Your task to perform on an android device: turn off picture-in-picture Image 0: 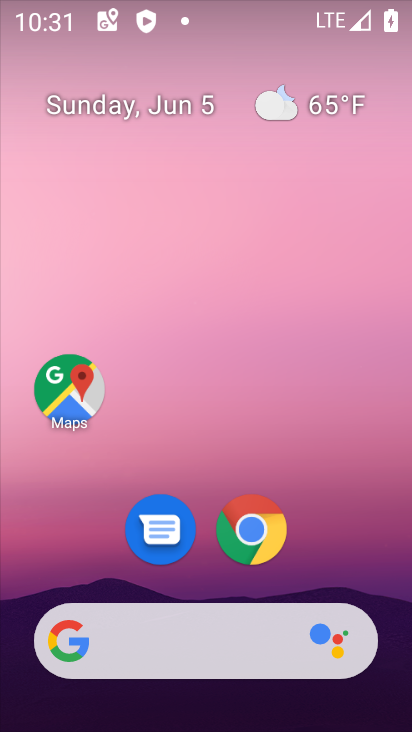
Step 0: click (256, 534)
Your task to perform on an android device: turn off picture-in-picture Image 1: 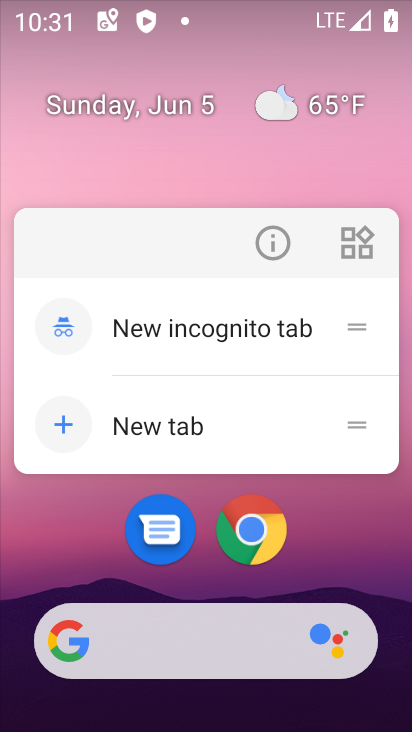
Step 1: click (276, 251)
Your task to perform on an android device: turn off picture-in-picture Image 2: 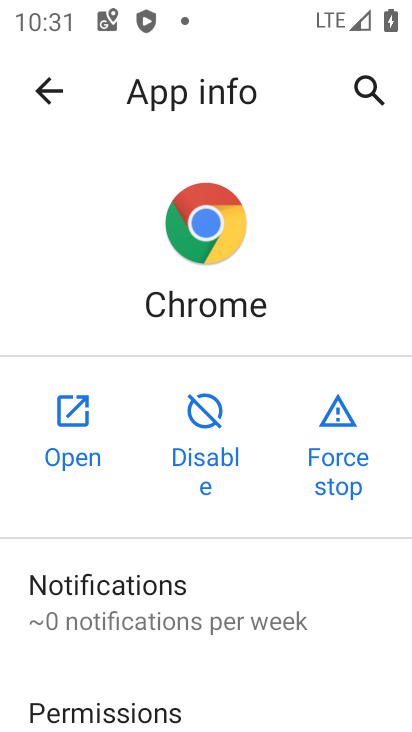
Step 2: drag from (235, 660) to (375, 44)
Your task to perform on an android device: turn off picture-in-picture Image 3: 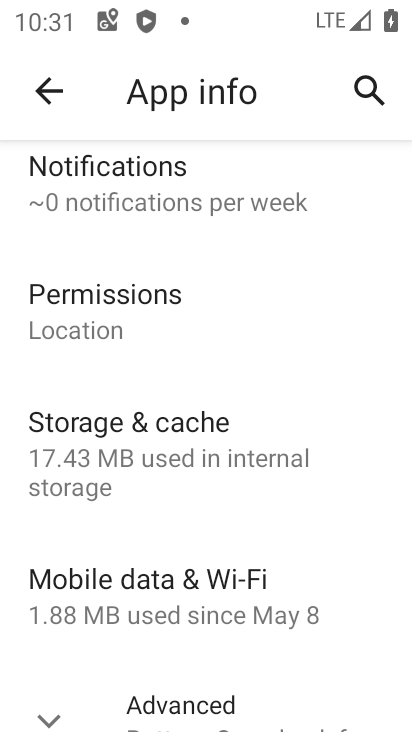
Step 3: drag from (296, 690) to (363, 24)
Your task to perform on an android device: turn off picture-in-picture Image 4: 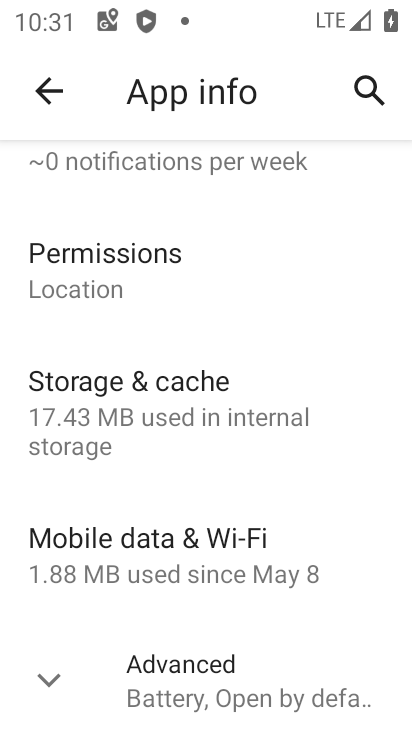
Step 4: click (251, 700)
Your task to perform on an android device: turn off picture-in-picture Image 5: 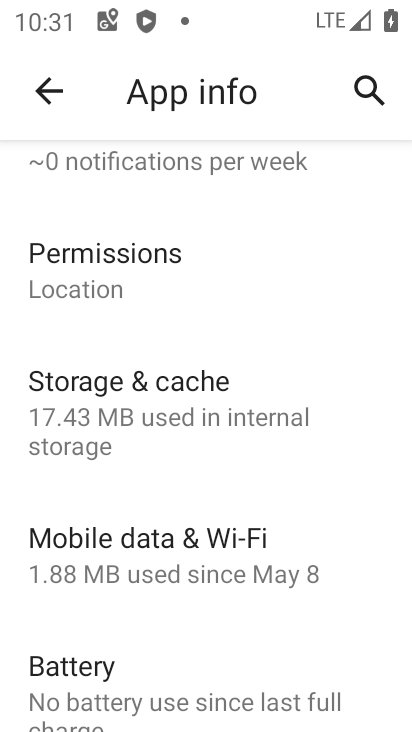
Step 5: drag from (106, 405) to (259, 7)
Your task to perform on an android device: turn off picture-in-picture Image 6: 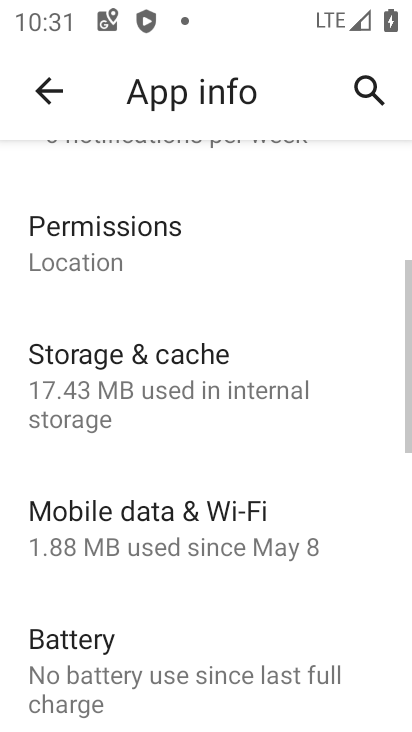
Step 6: drag from (286, 598) to (396, 236)
Your task to perform on an android device: turn off picture-in-picture Image 7: 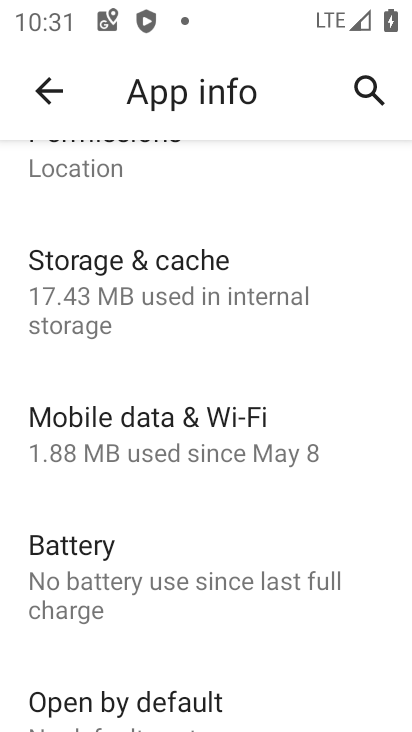
Step 7: drag from (222, 693) to (326, 15)
Your task to perform on an android device: turn off picture-in-picture Image 8: 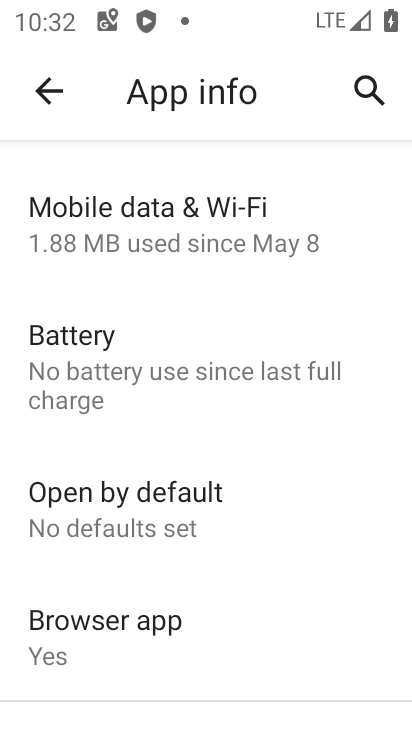
Step 8: drag from (289, 577) to (289, 27)
Your task to perform on an android device: turn off picture-in-picture Image 9: 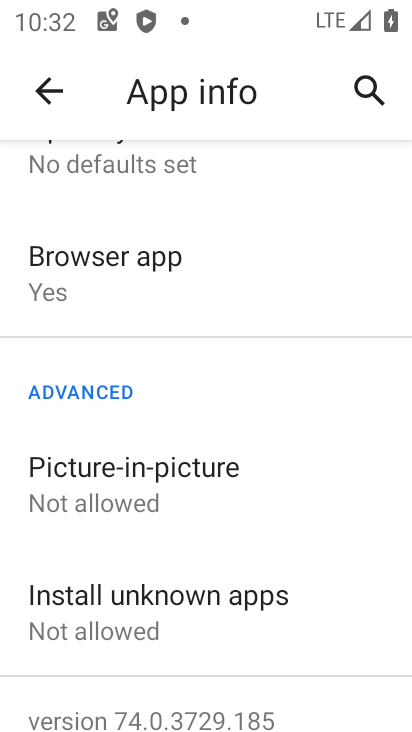
Step 9: click (220, 492)
Your task to perform on an android device: turn off picture-in-picture Image 10: 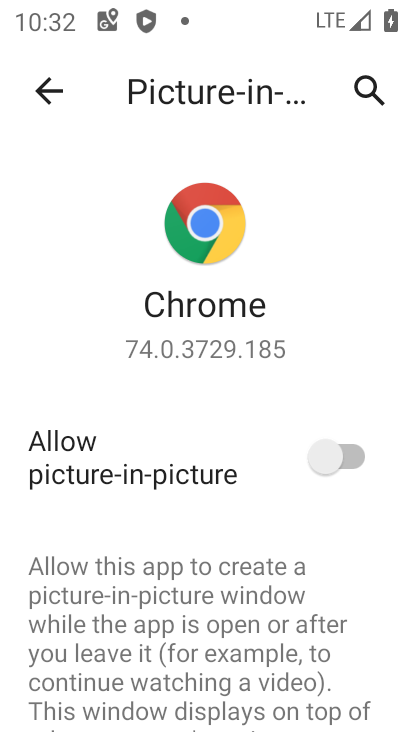
Step 10: task complete